Your task to perform on an android device: Open Chrome and go to settings Image 0: 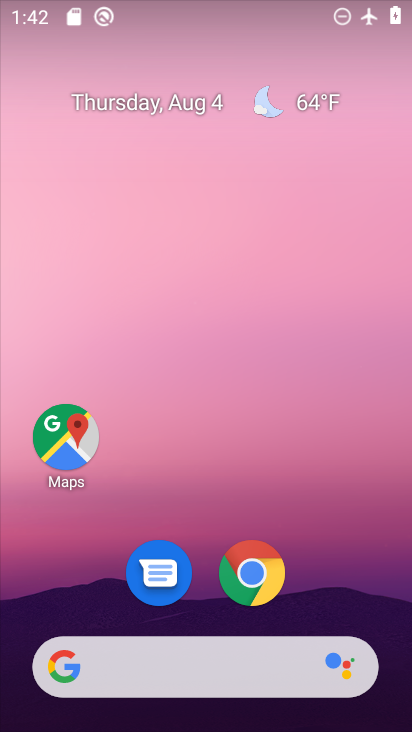
Step 0: drag from (319, 451) to (276, 62)
Your task to perform on an android device: Open Chrome and go to settings Image 1: 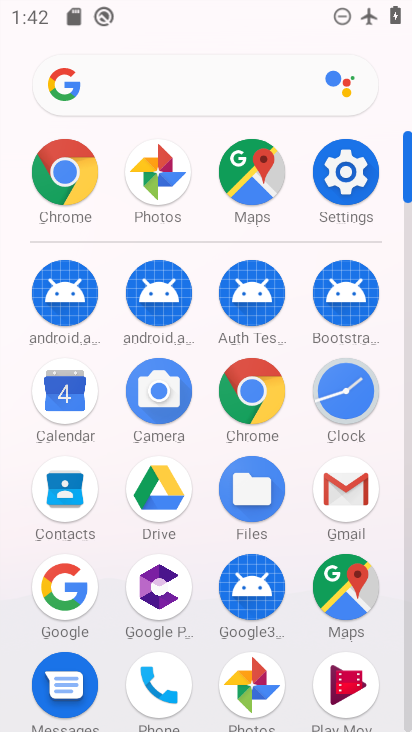
Step 1: click (259, 390)
Your task to perform on an android device: Open Chrome and go to settings Image 2: 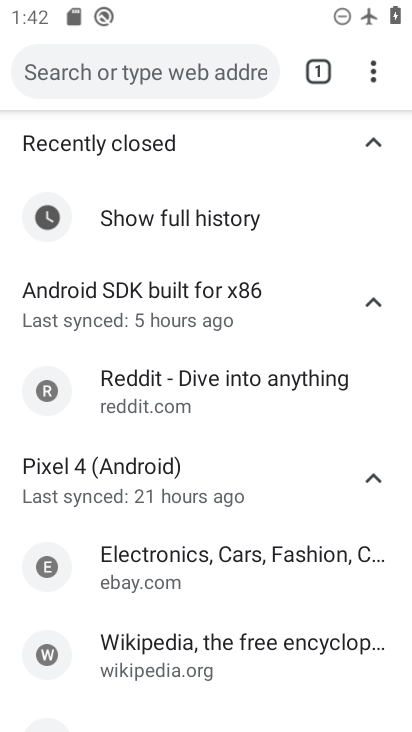
Step 2: task complete